Your task to perform on an android device: Show the shopping cart on ebay. Add "usb-b" to the cart on ebay Image 0: 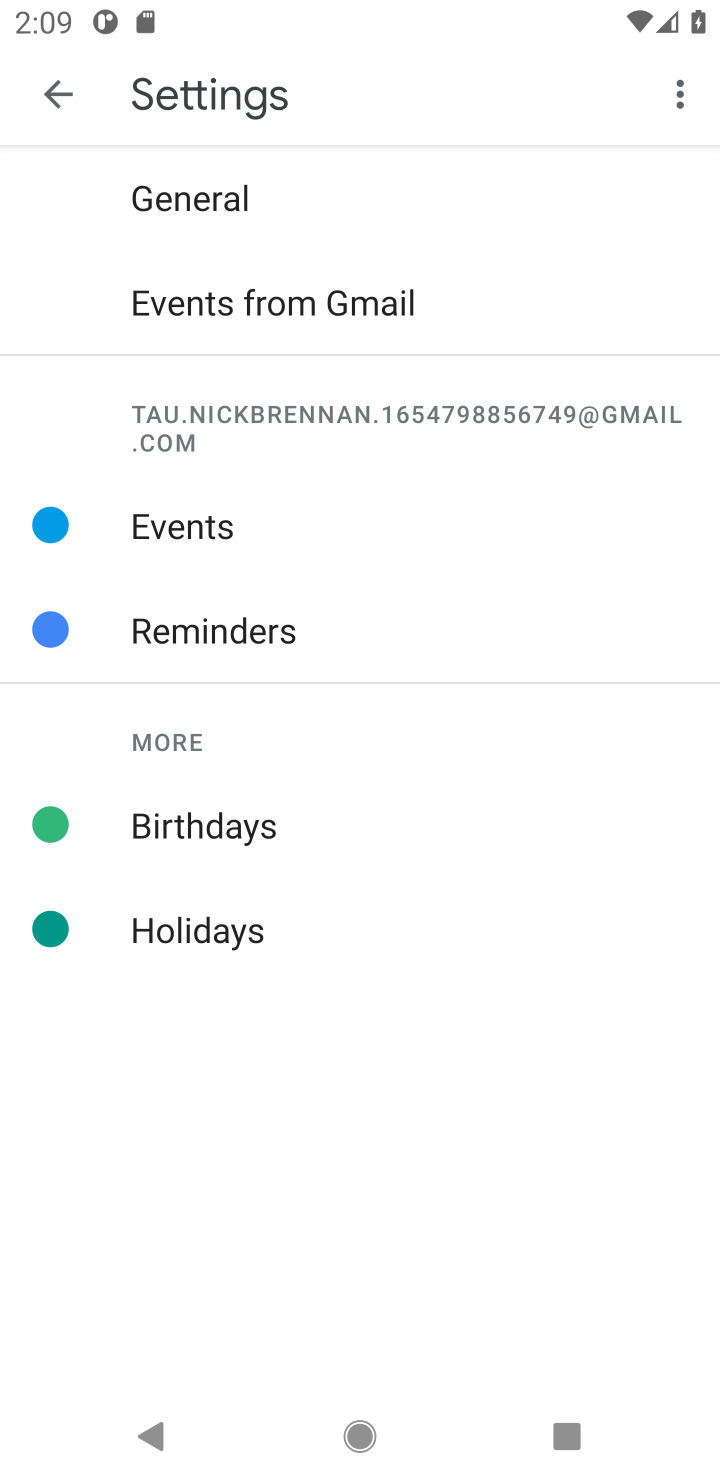
Step 0: press home button
Your task to perform on an android device: Show the shopping cart on ebay. Add "usb-b" to the cart on ebay Image 1: 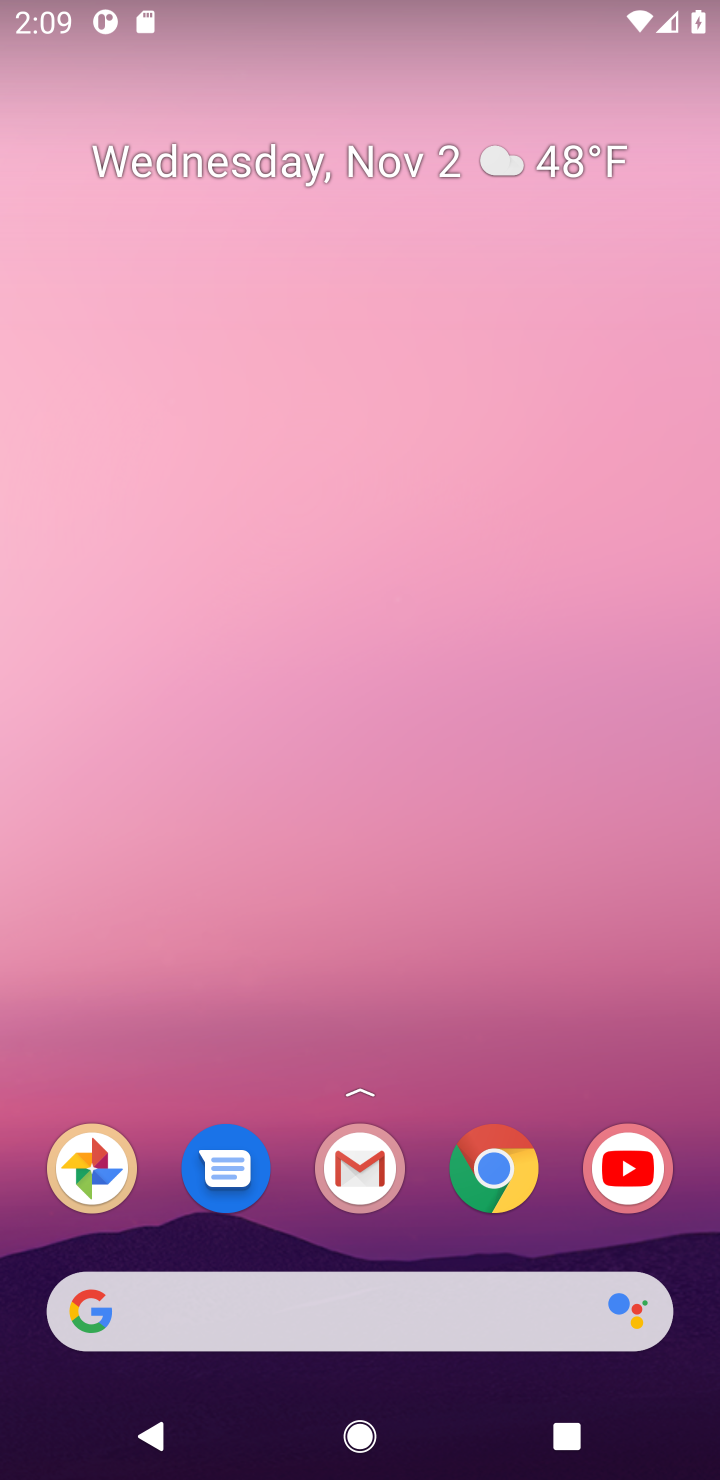
Step 1: click (354, 1316)
Your task to perform on an android device: Show the shopping cart on ebay. Add "usb-b" to the cart on ebay Image 2: 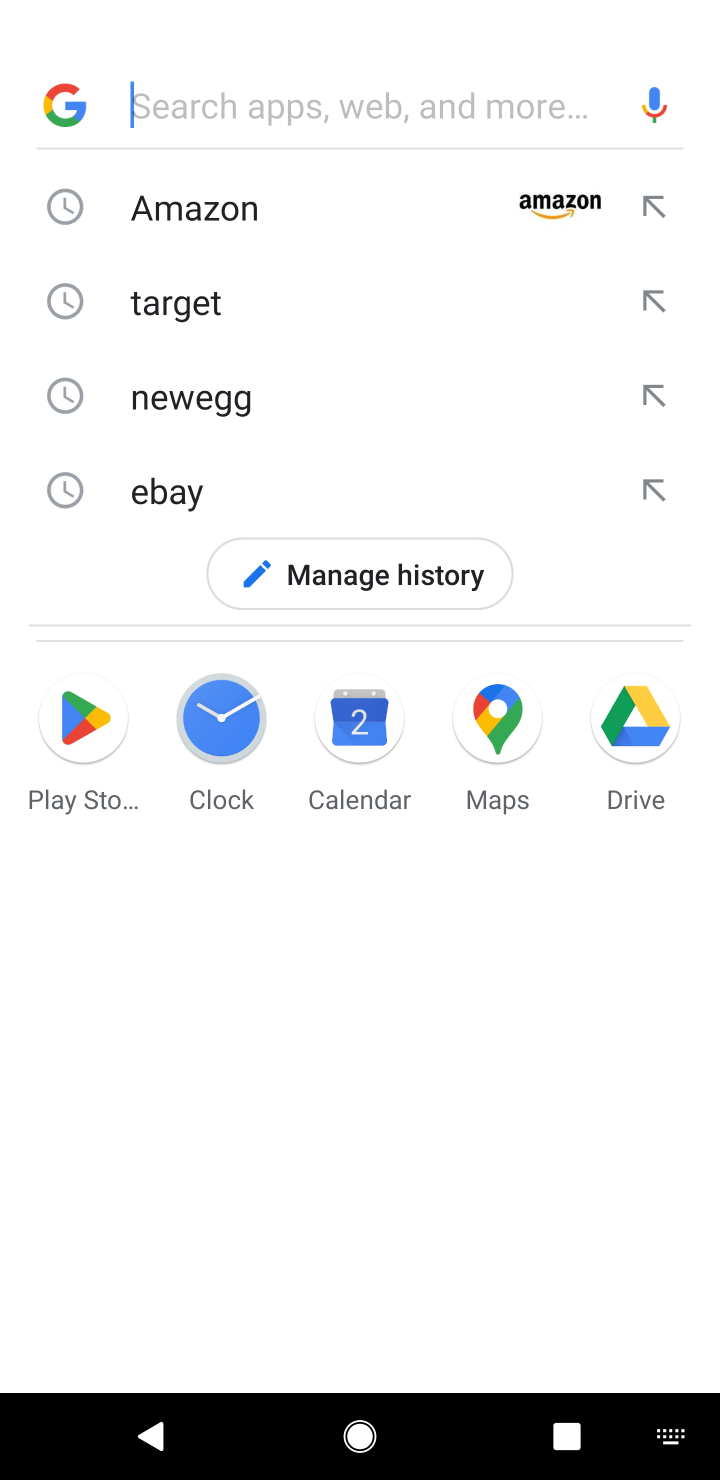
Step 2: click (219, 478)
Your task to perform on an android device: Show the shopping cart on ebay. Add "usb-b" to the cart on ebay Image 3: 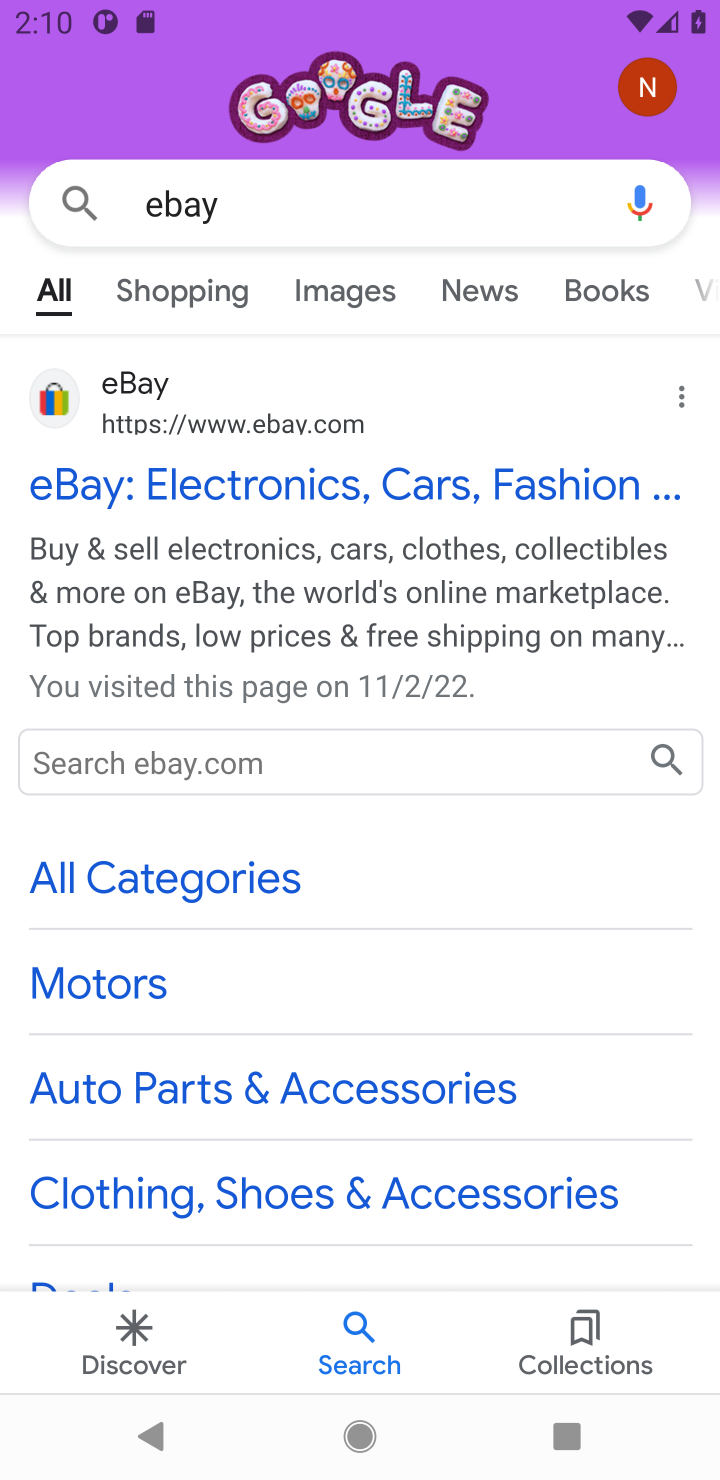
Step 3: click (120, 380)
Your task to perform on an android device: Show the shopping cart on ebay. Add "usb-b" to the cart on ebay Image 4: 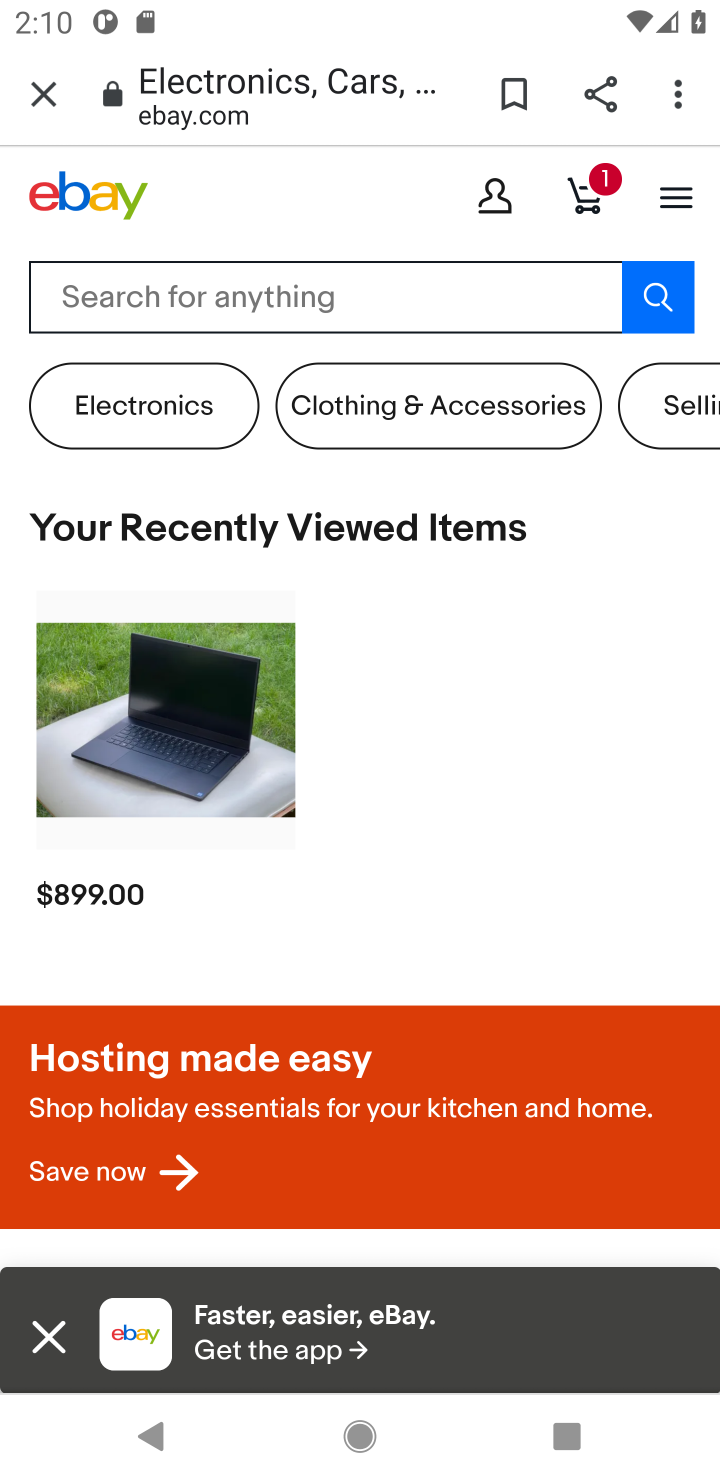
Step 4: click (229, 299)
Your task to perform on an android device: Show the shopping cart on ebay. Add "usb-b" to the cart on ebay Image 5: 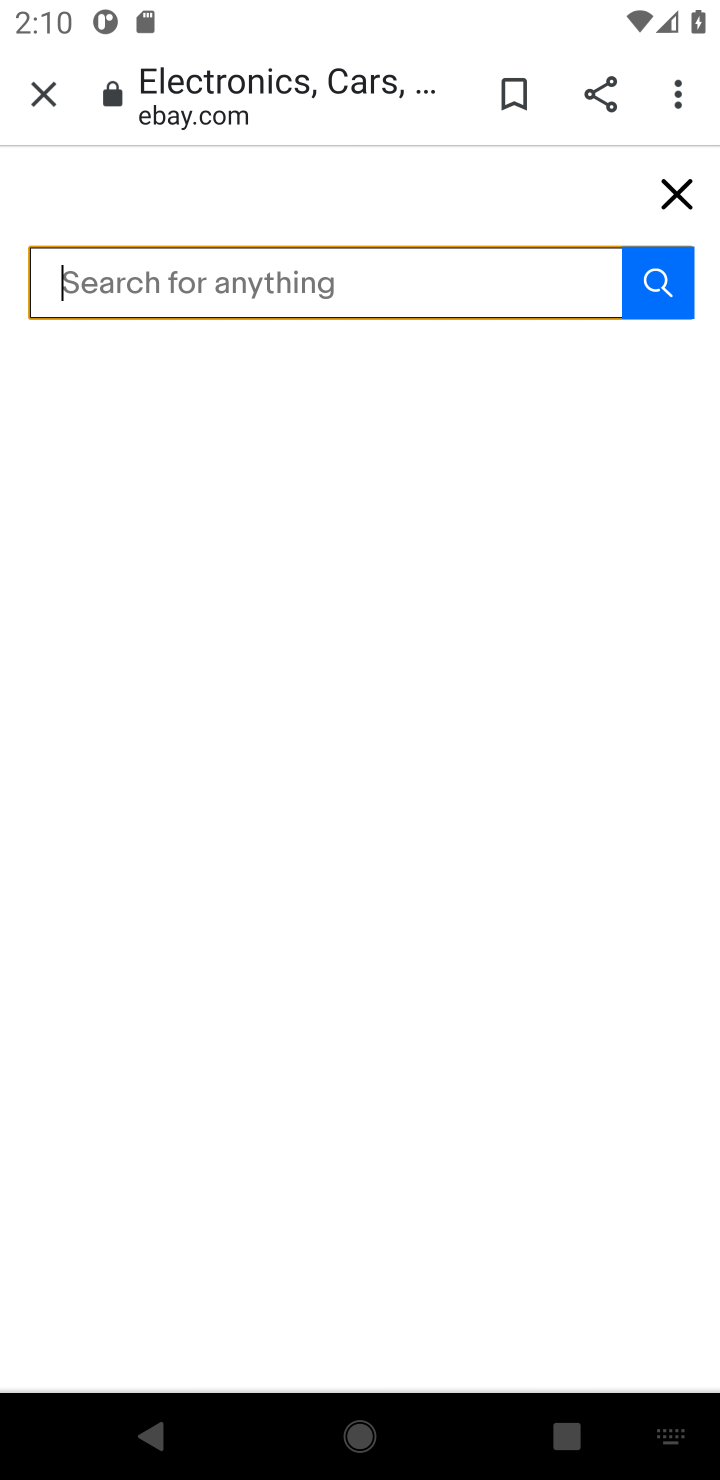
Step 5: type "usb-b""
Your task to perform on an android device: Show the shopping cart on ebay. Add "usb-b" to the cart on ebay Image 6: 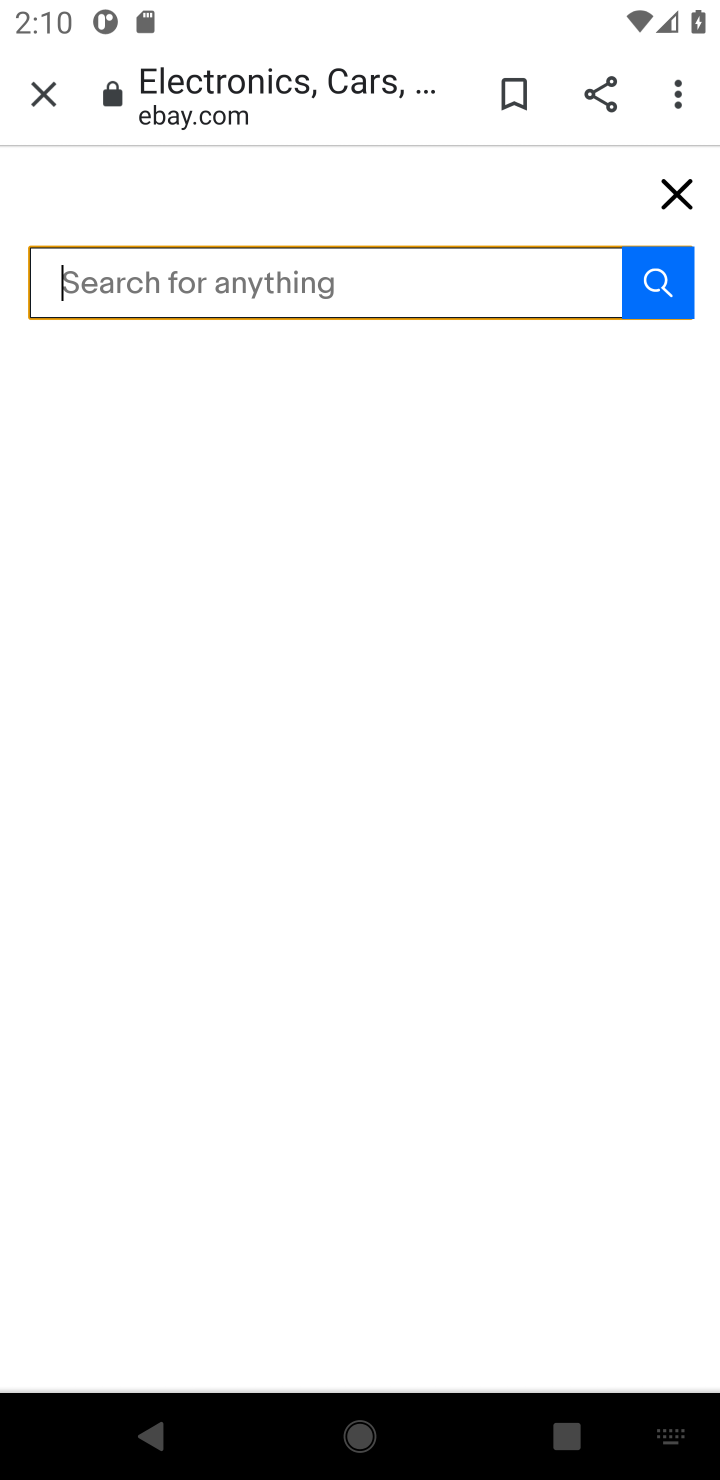
Step 6: click (488, 285)
Your task to perform on an android device: Show the shopping cart on ebay. Add "usb-b" to the cart on ebay Image 7: 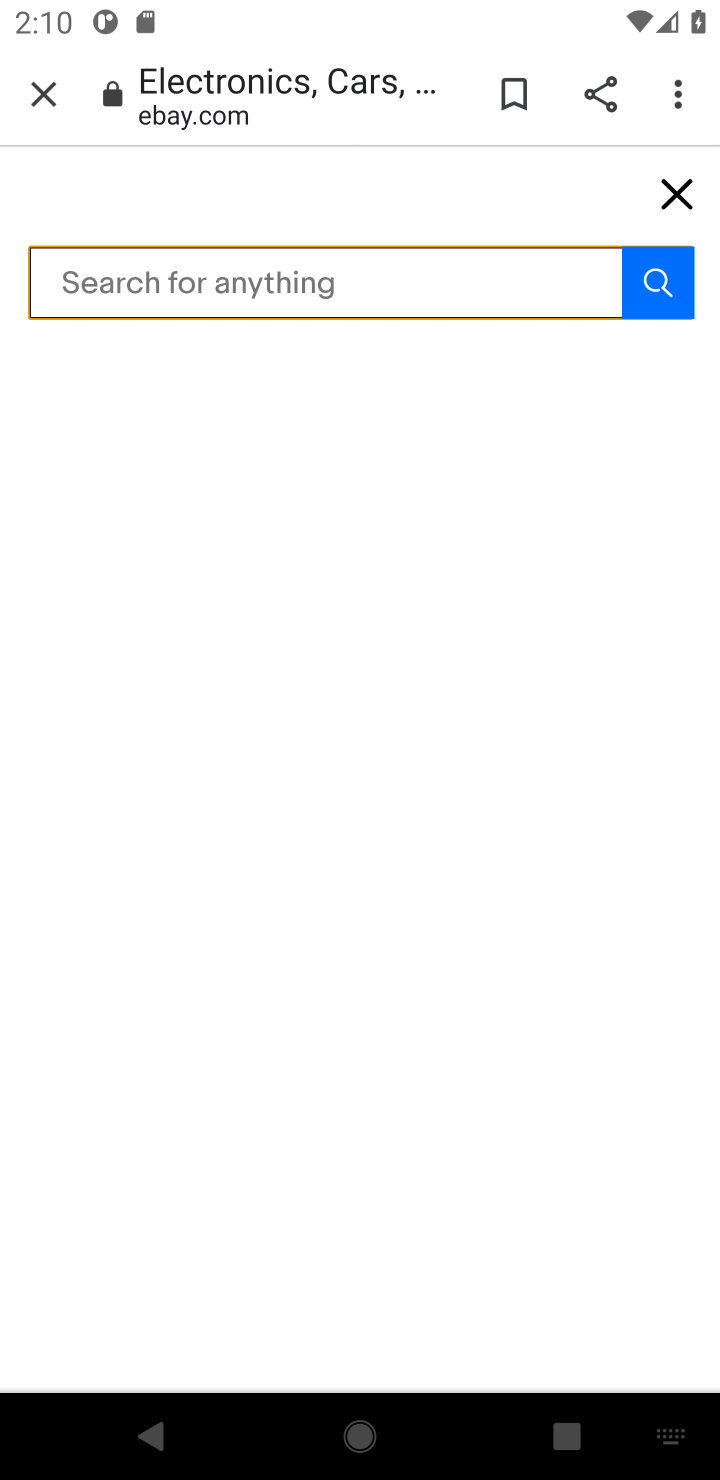
Step 7: type "usb-b""
Your task to perform on an android device: Show the shopping cart on ebay. Add "usb-b" to the cart on ebay Image 8: 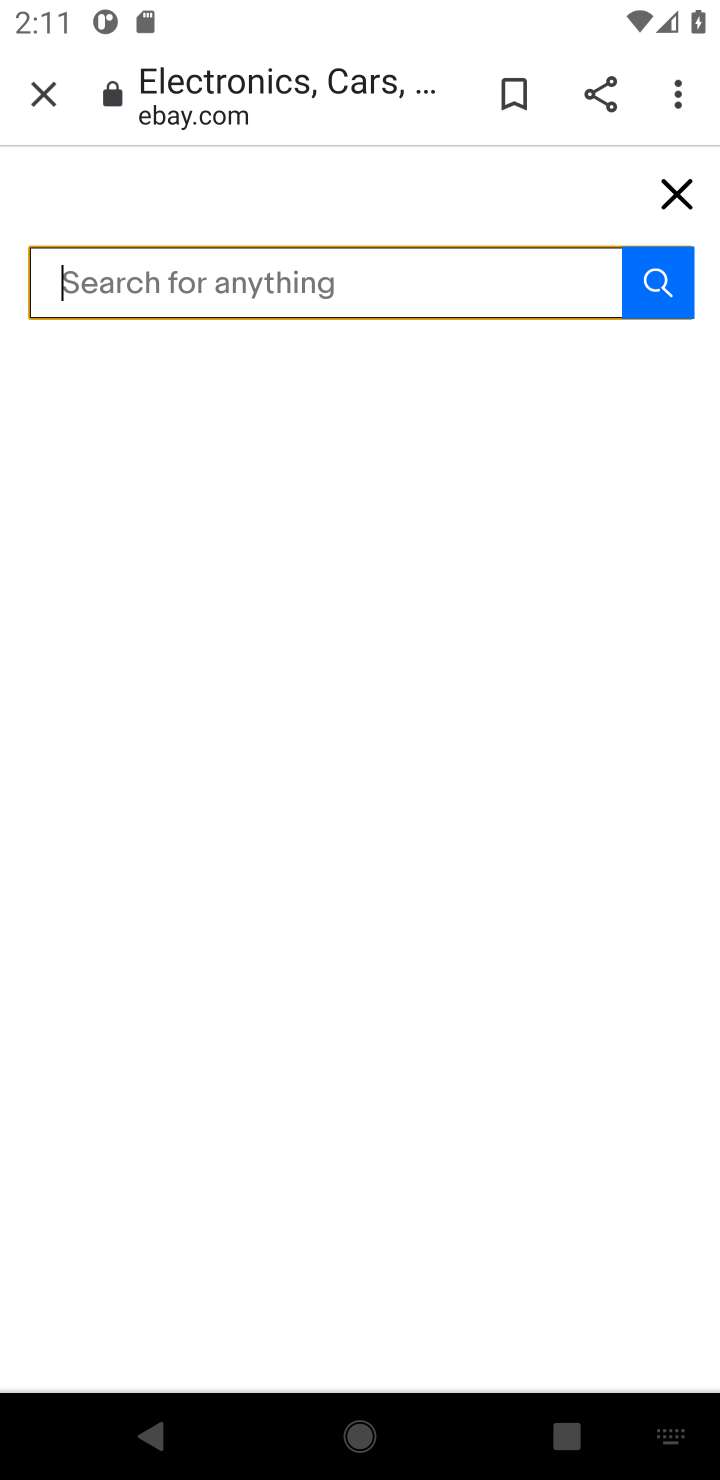
Step 8: task complete